Your task to perform on an android device: turn smart compose on in the gmail app Image 0: 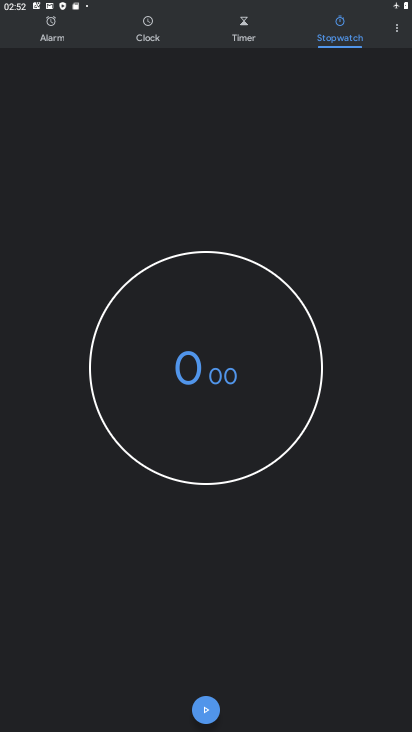
Step 0: press home button
Your task to perform on an android device: turn smart compose on in the gmail app Image 1: 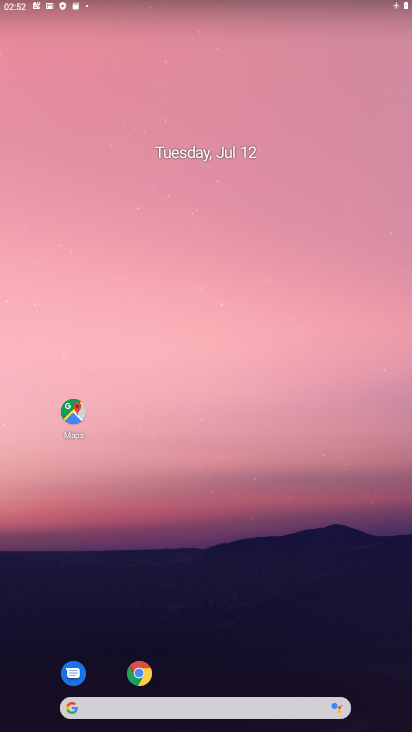
Step 1: drag from (220, 657) to (220, 176)
Your task to perform on an android device: turn smart compose on in the gmail app Image 2: 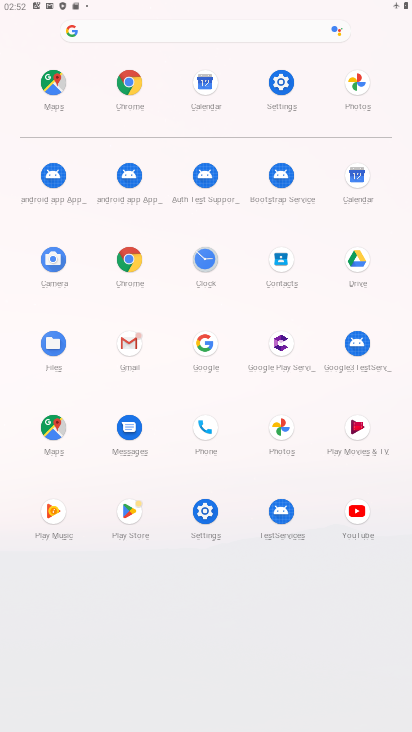
Step 2: click (124, 335)
Your task to perform on an android device: turn smart compose on in the gmail app Image 3: 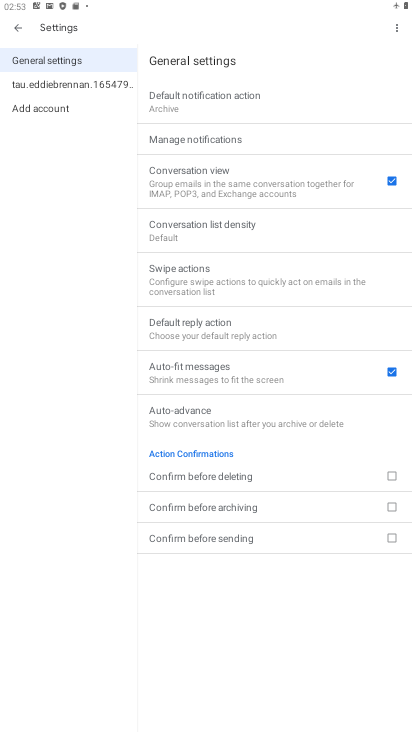
Step 3: press home button
Your task to perform on an android device: turn smart compose on in the gmail app Image 4: 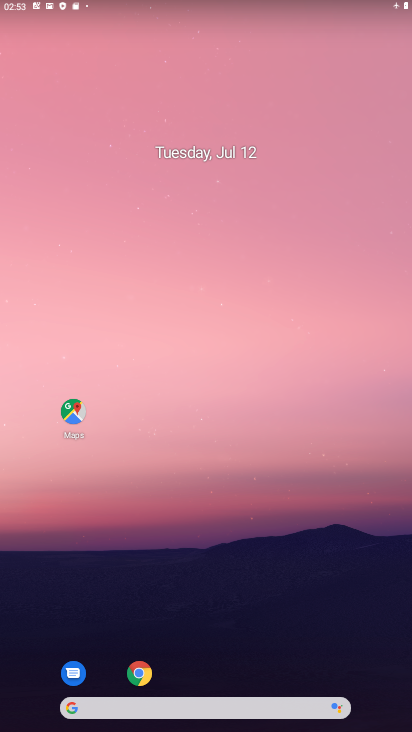
Step 4: drag from (227, 568) to (238, 127)
Your task to perform on an android device: turn smart compose on in the gmail app Image 5: 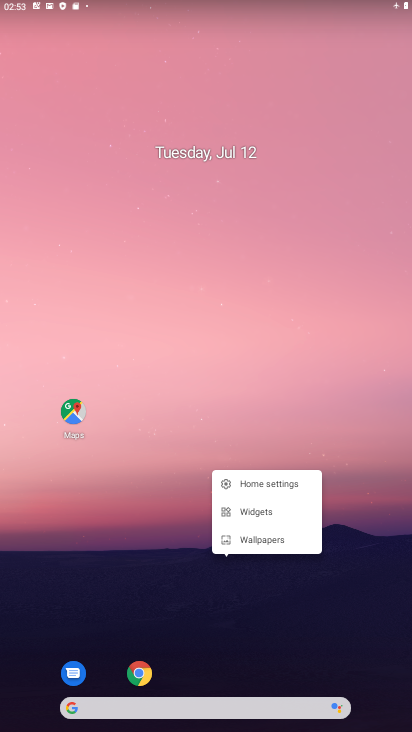
Step 5: drag from (169, 555) to (186, 82)
Your task to perform on an android device: turn smart compose on in the gmail app Image 6: 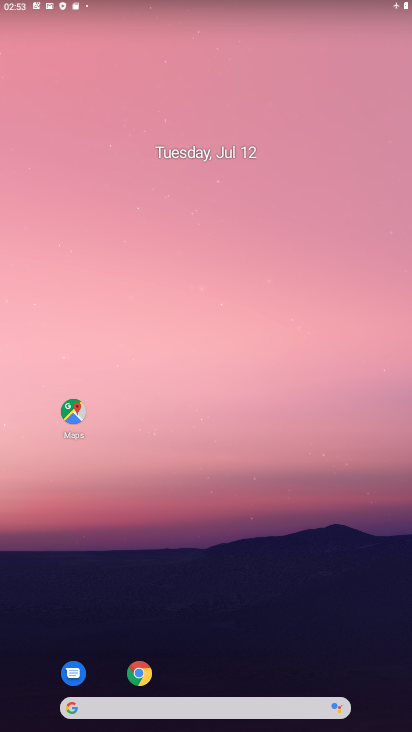
Step 6: drag from (227, 537) to (244, 41)
Your task to perform on an android device: turn smart compose on in the gmail app Image 7: 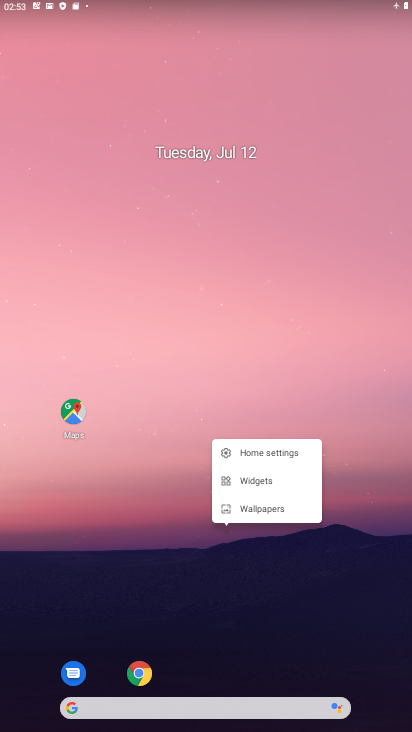
Step 7: click (161, 501)
Your task to perform on an android device: turn smart compose on in the gmail app Image 8: 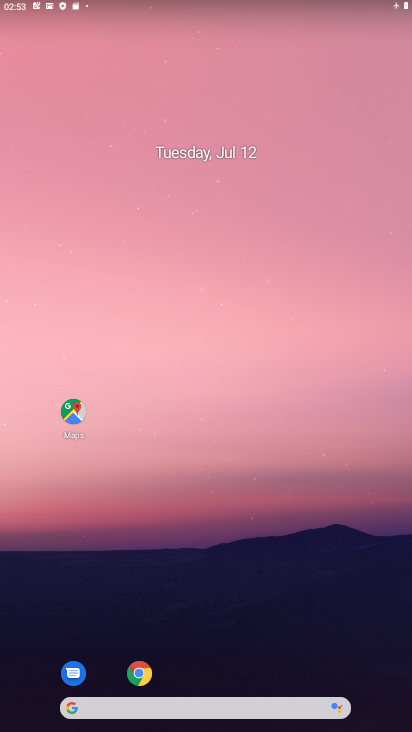
Step 8: press home button
Your task to perform on an android device: turn smart compose on in the gmail app Image 9: 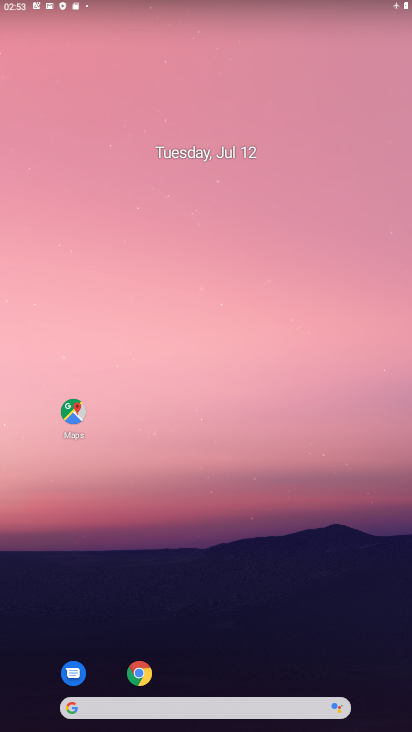
Step 9: drag from (245, 563) to (278, 5)
Your task to perform on an android device: turn smart compose on in the gmail app Image 10: 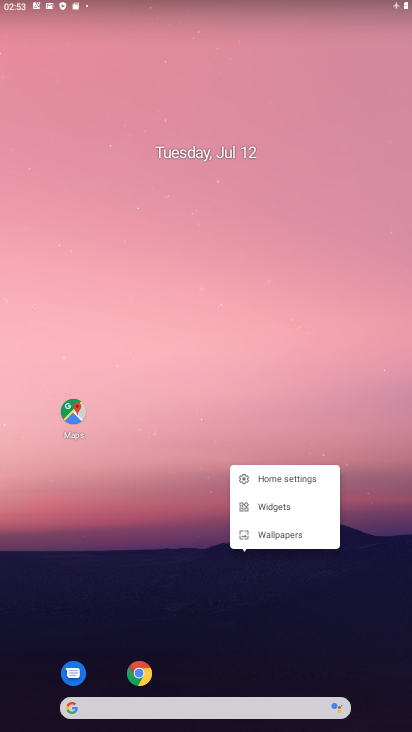
Step 10: press home button
Your task to perform on an android device: turn smart compose on in the gmail app Image 11: 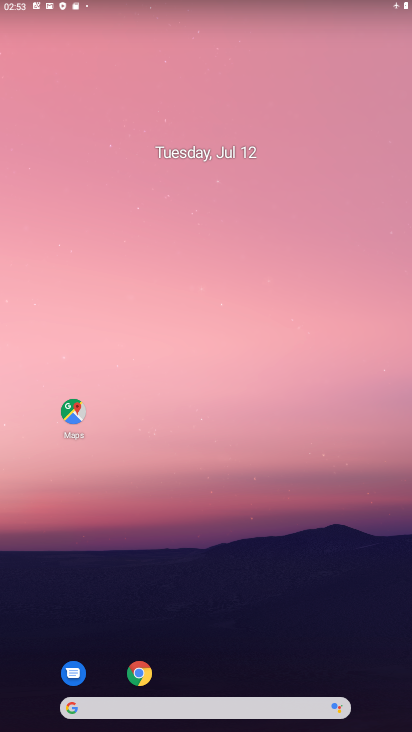
Step 11: press home button
Your task to perform on an android device: turn smart compose on in the gmail app Image 12: 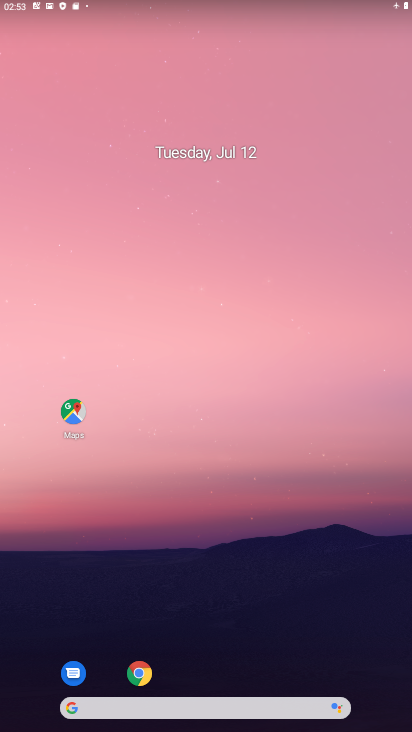
Step 12: press home button
Your task to perform on an android device: turn smart compose on in the gmail app Image 13: 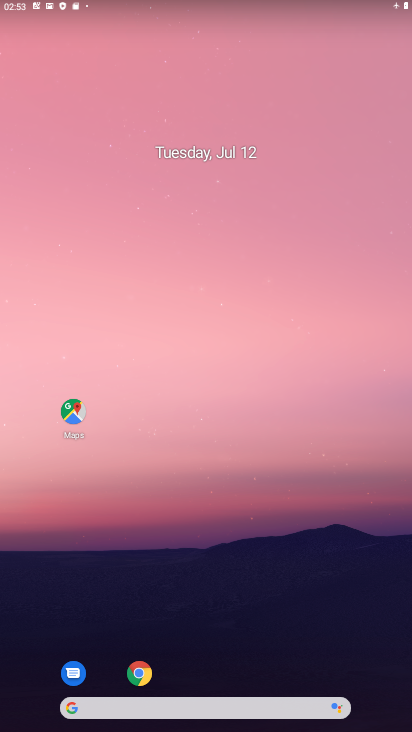
Step 13: press home button
Your task to perform on an android device: turn smart compose on in the gmail app Image 14: 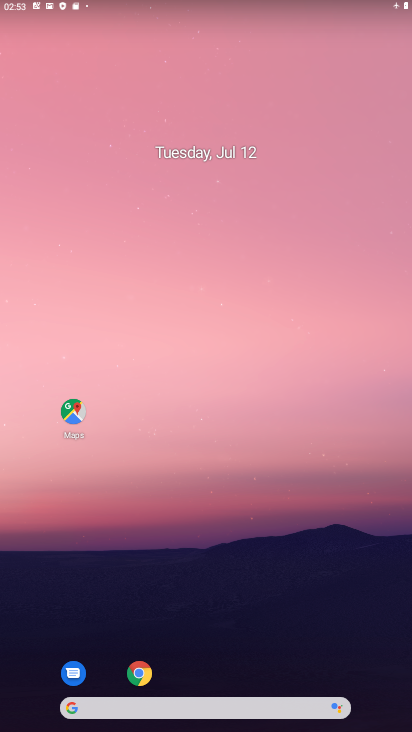
Step 14: press home button
Your task to perform on an android device: turn smart compose on in the gmail app Image 15: 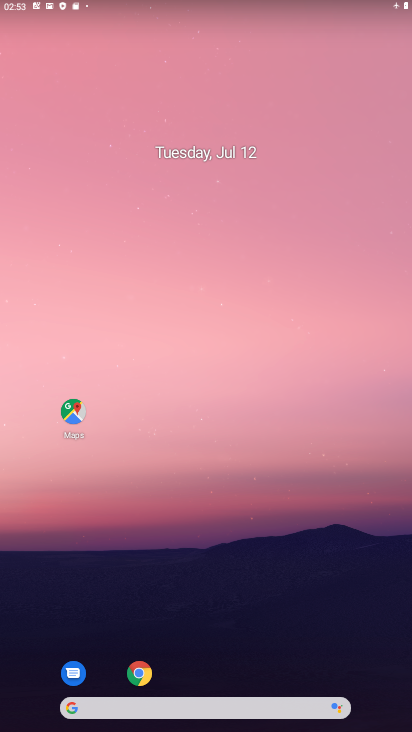
Step 15: drag from (342, 635) to (281, 404)
Your task to perform on an android device: turn smart compose on in the gmail app Image 16: 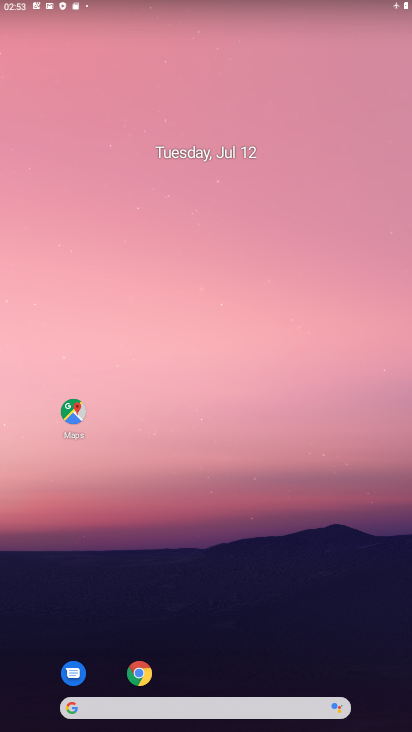
Step 16: drag from (208, 505) to (170, 3)
Your task to perform on an android device: turn smart compose on in the gmail app Image 17: 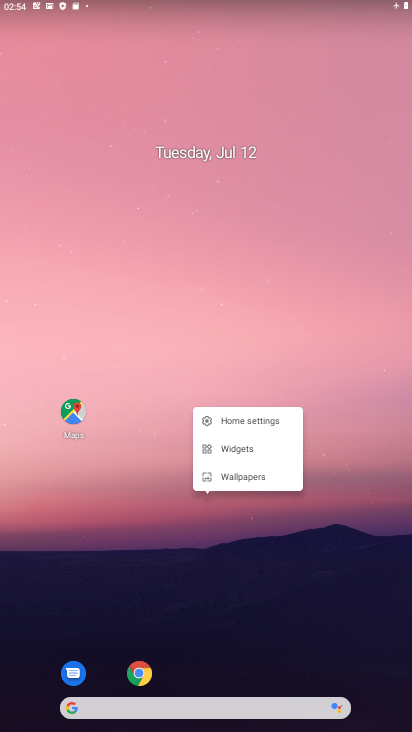
Step 17: drag from (141, 542) to (152, 2)
Your task to perform on an android device: turn smart compose on in the gmail app Image 18: 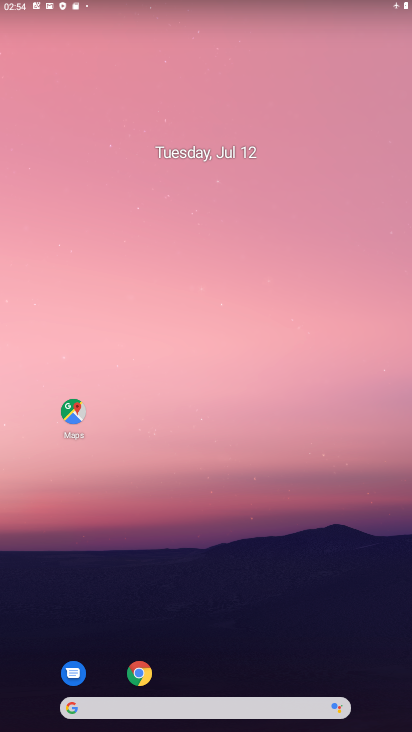
Step 18: drag from (189, 635) to (151, 59)
Your task to perform on an android device: turn smart compose on in the gmail app Image 19: 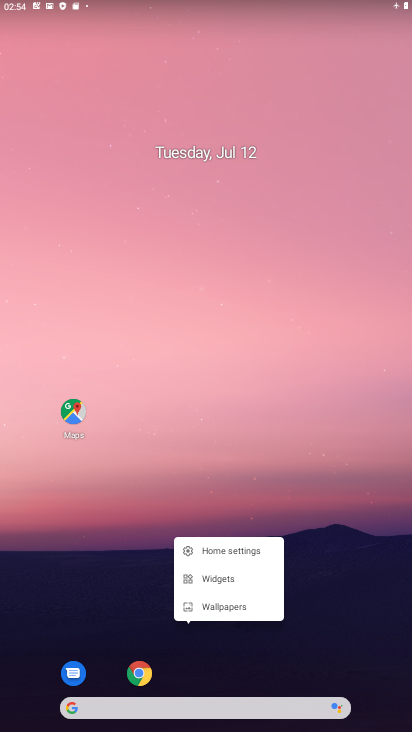
Step 19: click (192, 378)
Your task to perform on an android device: turn smart compose on in the gmail app Image 20: 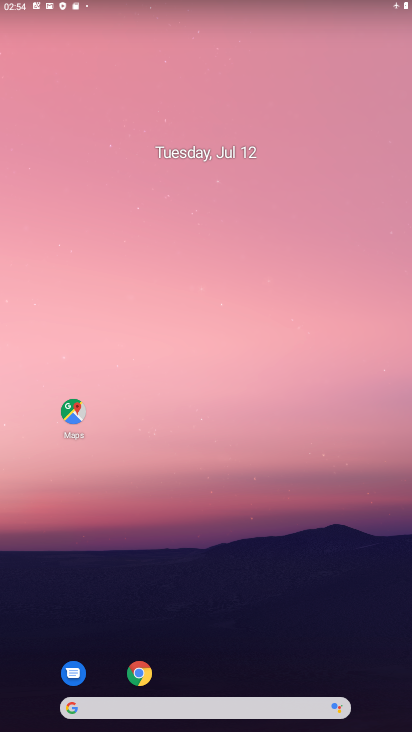
Step 20: drag from (184, 400) to (200, 30)
Your task to perform on an android device: turn smart compose on in the gmail app Image 21: 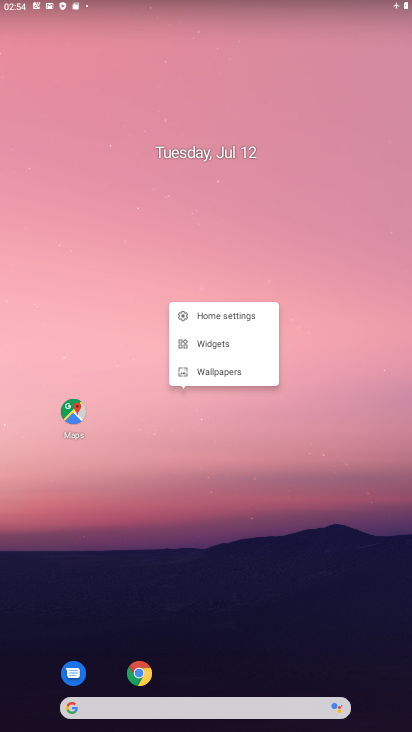
Step 21: click (184, 562)
Your task to perform on an android device: turn smart compose on in the gmail app Image 22: 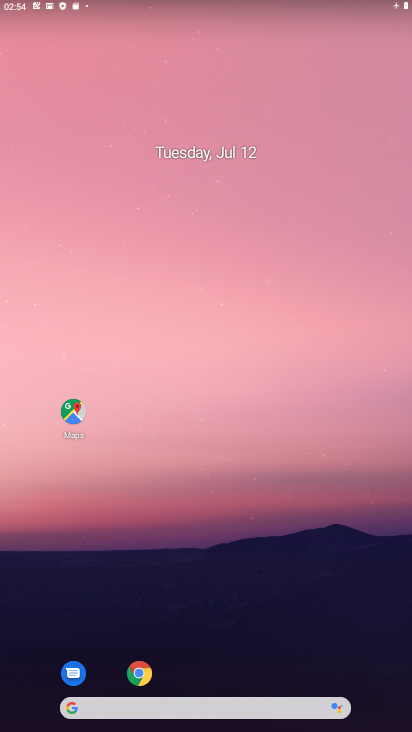
Step 22: drag from (182, 589) to (376, 3)
Your task to perform on an android device: turn smart compose on in the gmail app Image 23: 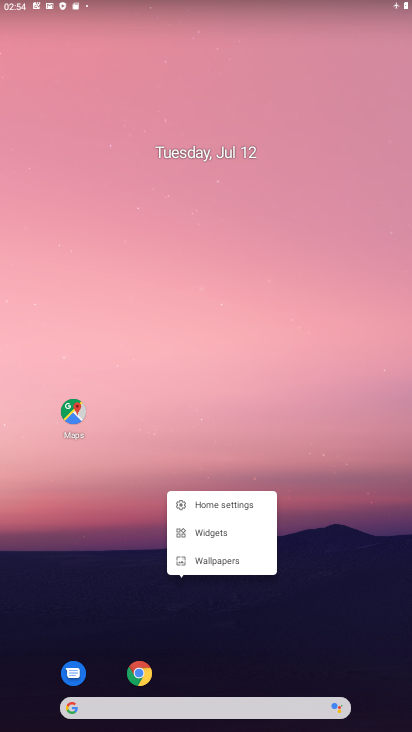
Step 23: press home button
Your task to perform on an android device: turn smart compose on in the gmail app Image 24: 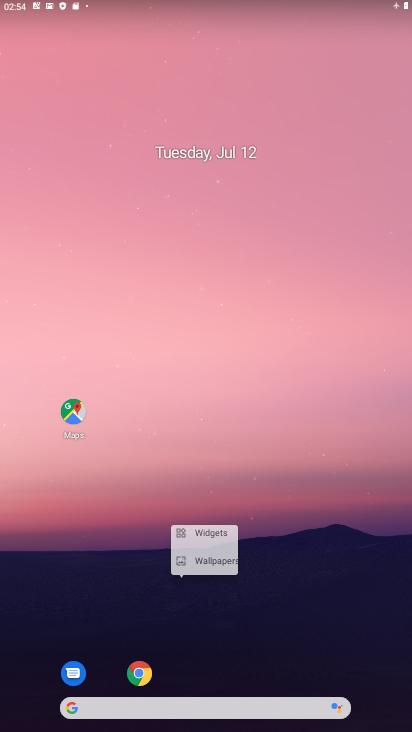
Step 24: press home button
Your task to perform on an android device: turn smart compose on in the gmail app Image 25: 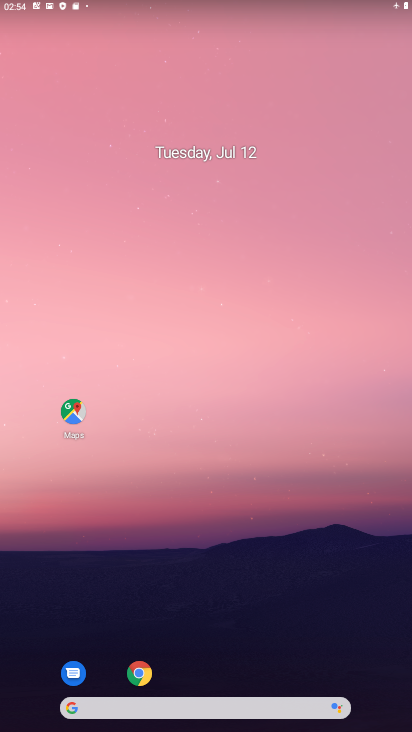
Step 25: press home button
Your task to perform on an android device: turn smart compose on in the gmail app Image 26: 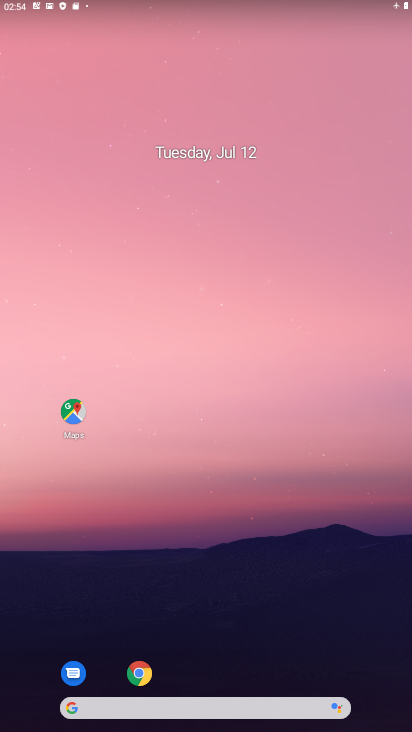
Step 26: press home button
Your task to perform on an android device: turn smart compose on in the gmail app Image 27: 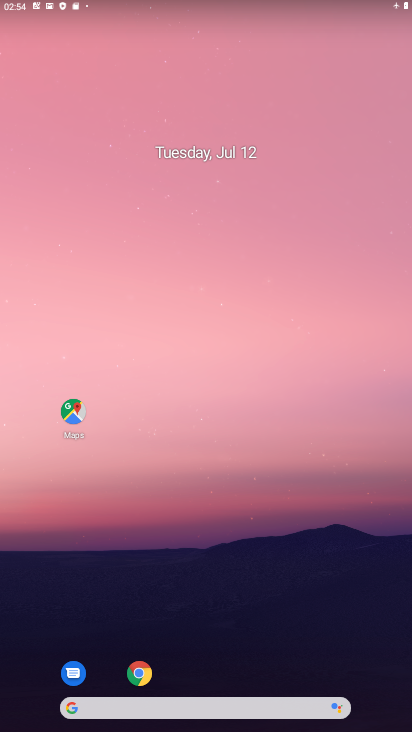
Step 27: drag from (240, 610) to (181, 77)
Your task to perform on an android device: turn smart compose on in the gmail app Image 28: 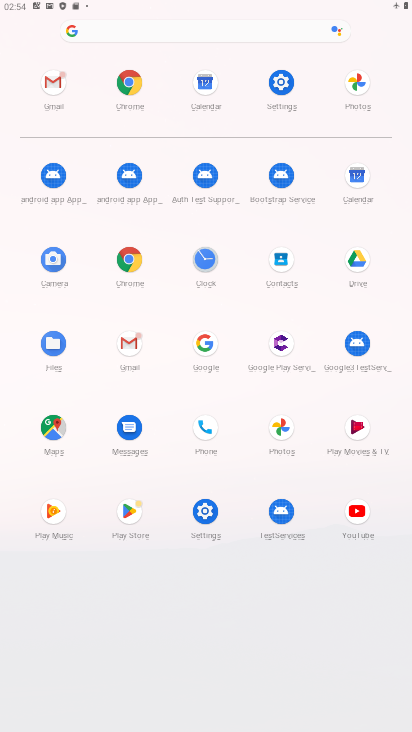
Step 28: click (54, 80)
Your task to perform on an android device: turn smart compose on in the gmail app Image 29: 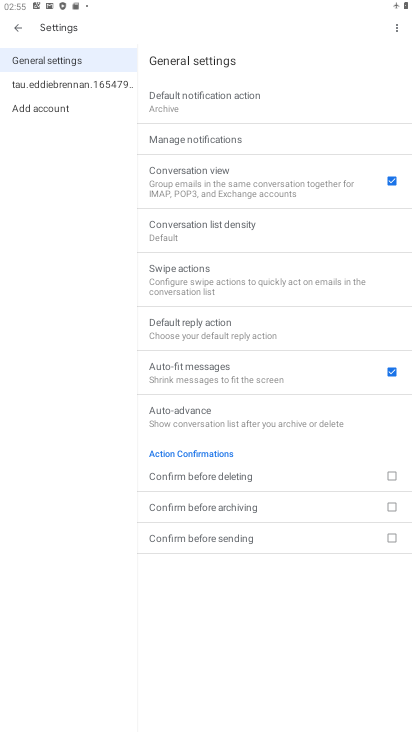
Step 29: click (393, 27)
Your task to perform on an android device: turn smart compose on in the gmail app Image 30: 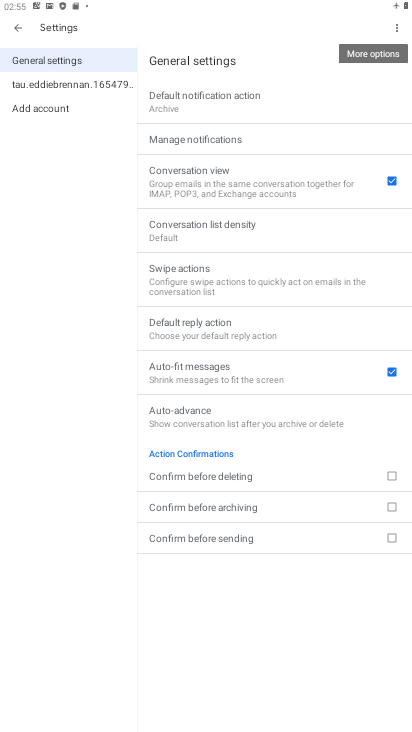
Step 30: click (392, 29)
Your task to perform on an android device: turn smart compose on in the gmail app Image 31: 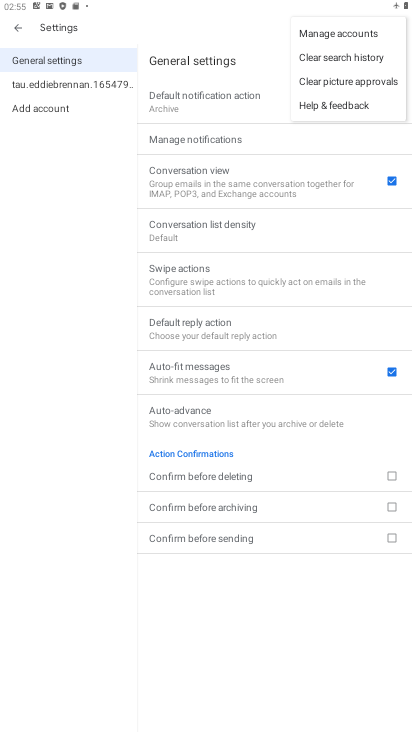
Step 31: click (40, 78)
Your task to perform on an android device: turn smart compose on in the gmail app Image 32: 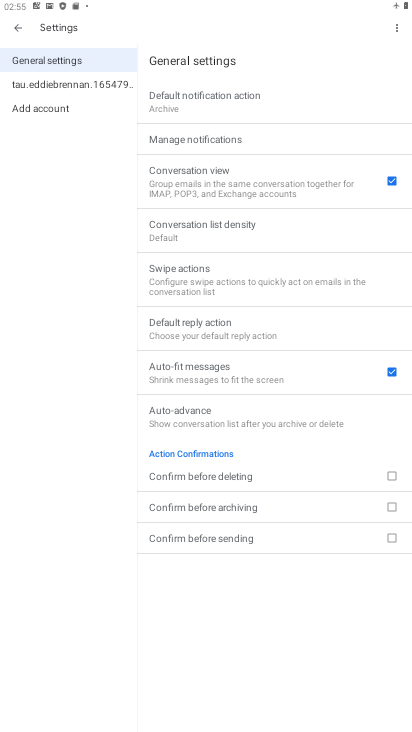
Step 32: click (41, 85)
Your task to perform on an android device: turn smart compose on in the gmail app Image 33: 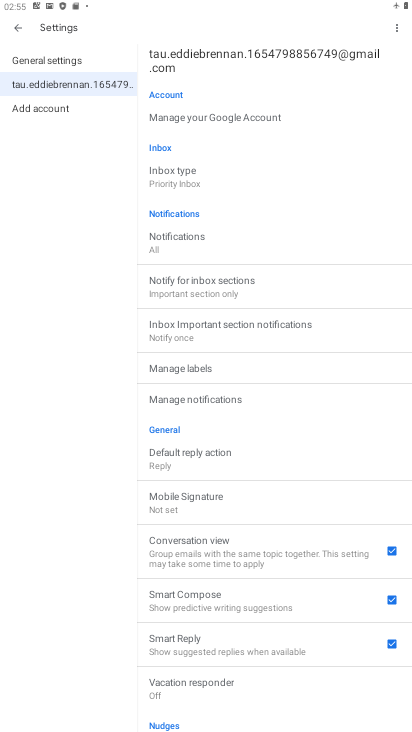
Step 33: click (387, 593)
Your task to perform on an android device: turn smart compose on in the gmail app Image 34: 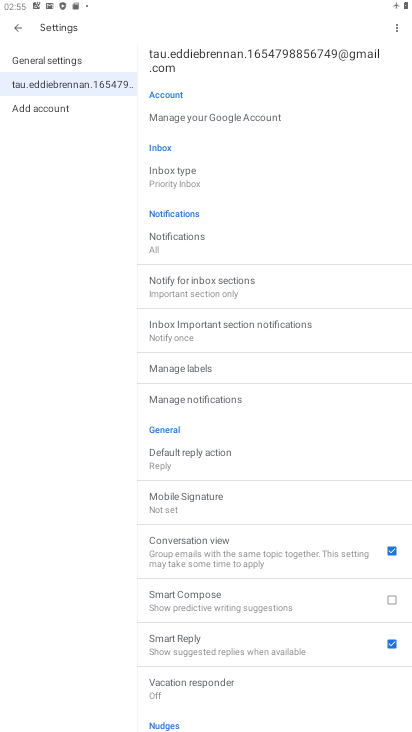
Step 34: click (392, 594)
Your task to perform on an android device: turn smart compose on in the gmail app Image 35: 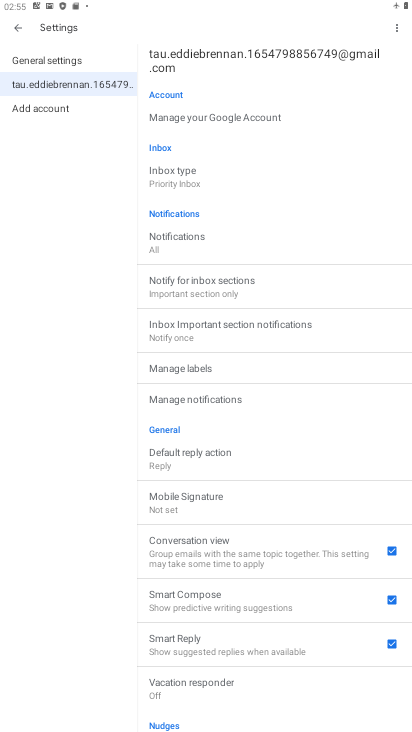
Step 35: task complete